Your task to perform on an android device: Empty the shopping cart on target.com. Search for logitech g933 on target.com, select the first entry, add it to the cart, then select checkout. Image 0: 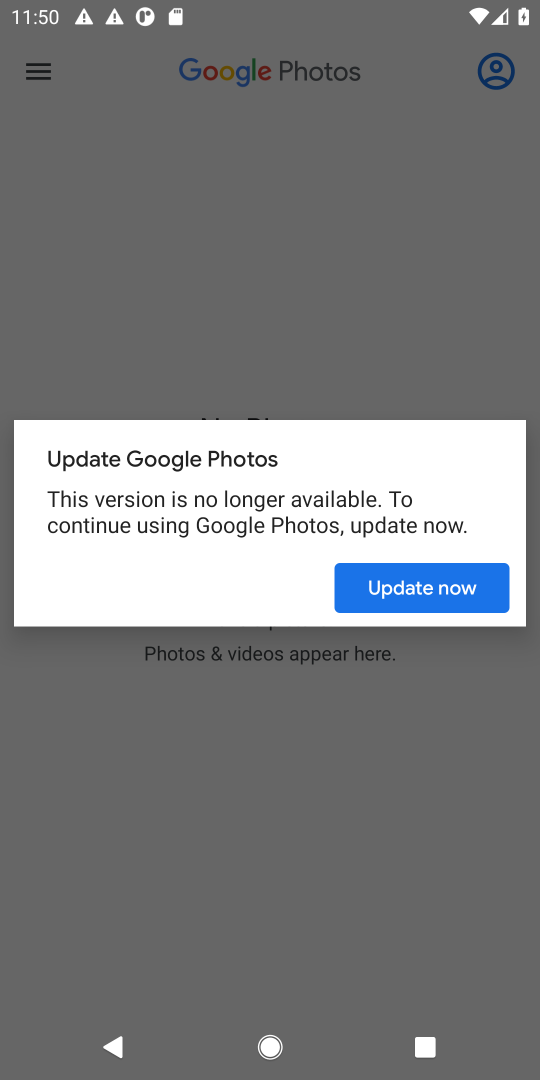
Step 0: press home button
Your task to perform on an android device: Empty the shopping cart on target.com. Search for logitech g933 on target.com, select the first entry, add it to the cart, then select checkout. Image 1: 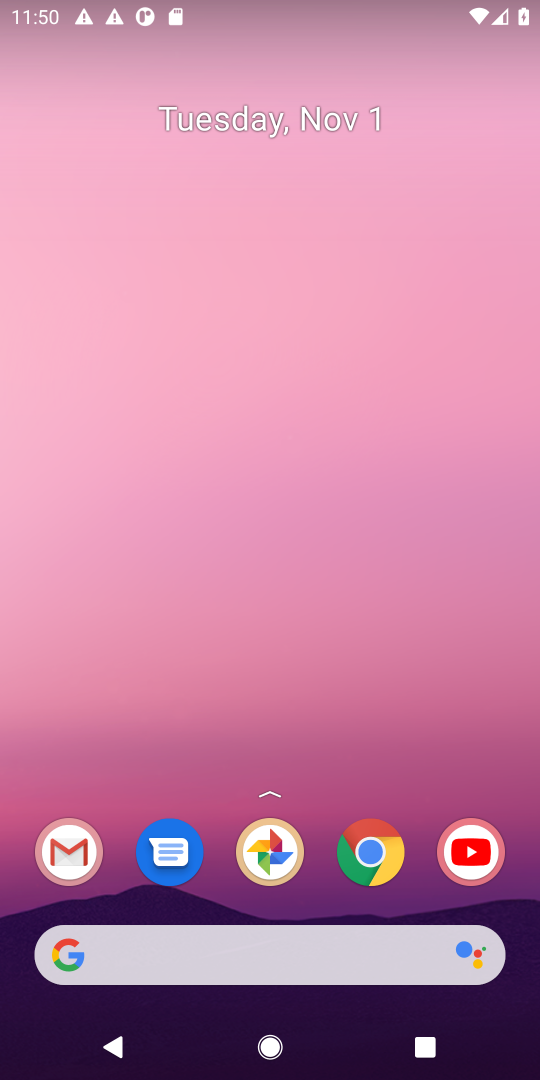
Step 1: click (61, 958)
Your task to perform on an android device: Empty the shopping cart on target.com. Search for logitech g933 on target.com, select the first entry, add it to the cart, then select checkout. Image 2: 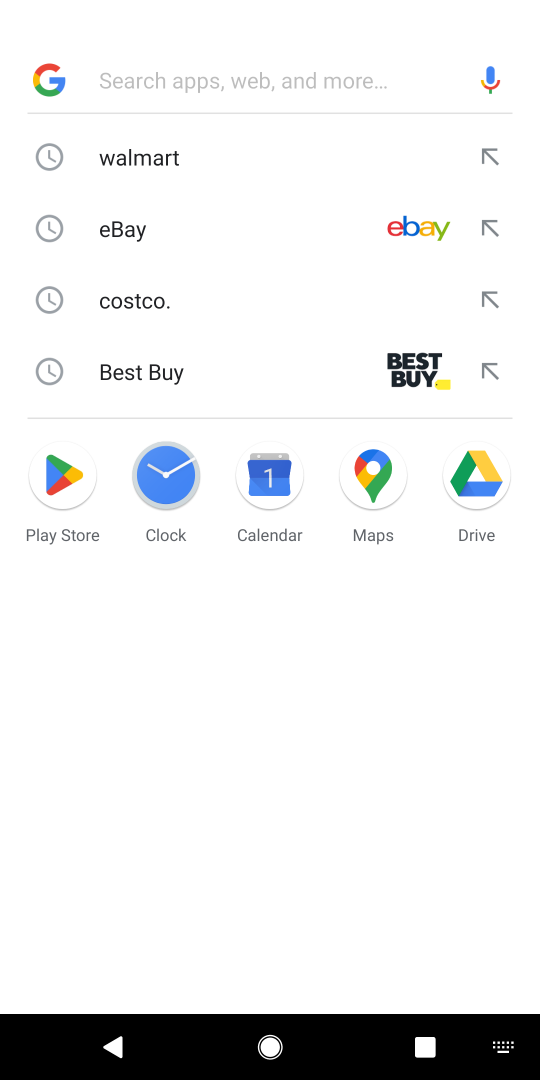
Step 2: type "target.com"
Your task to perform on an android device: Empty the shopping cart on target.com. Search for logitech g933 on target.com, select the first entry, add it to the cart, then select checkout. Image 3: 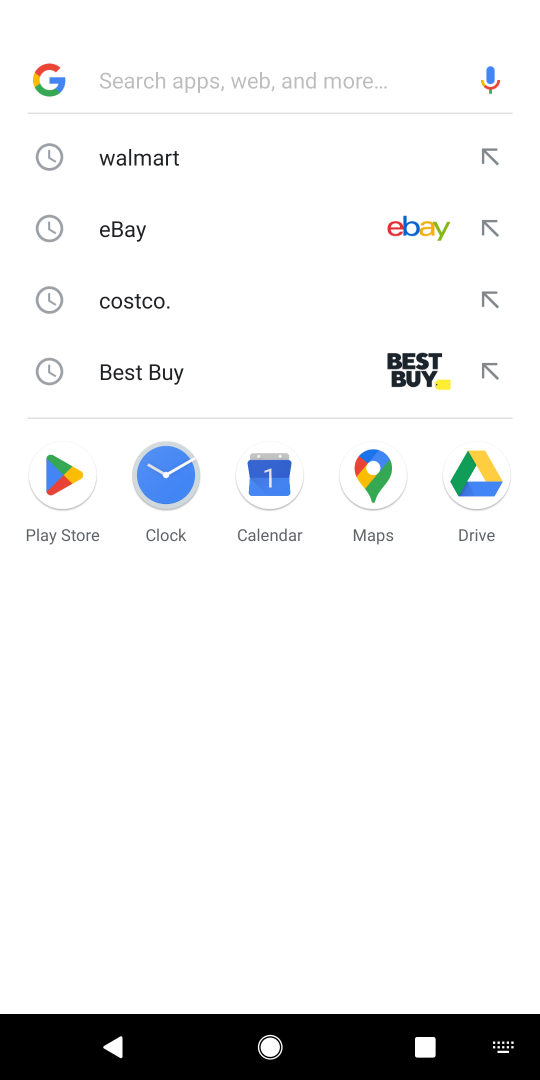
Step 3: click (126, 77)
Your task to perform on an android device: Empty the shopping cart on target.com. Search for logitech g933 on target.com, select the first entry, add it to the cart, then select checkout. Image 4: 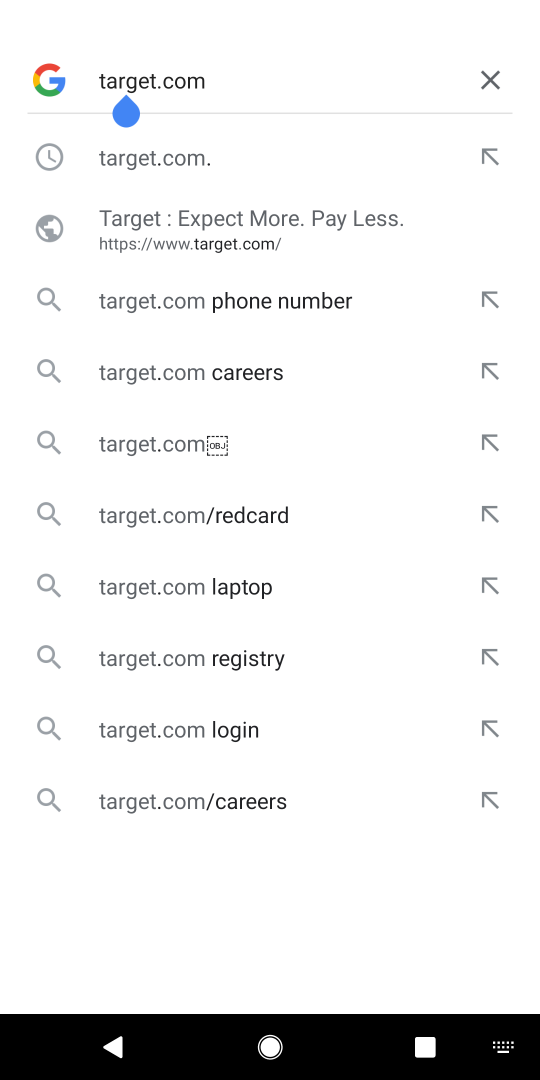
Step 4: click (154, 154)
Your task to perform on an android device: Empty the shopping cart on target.com. Search for logitech g933 on target.com, select the first entry, add it to the cart, then select checkout. Image 5: 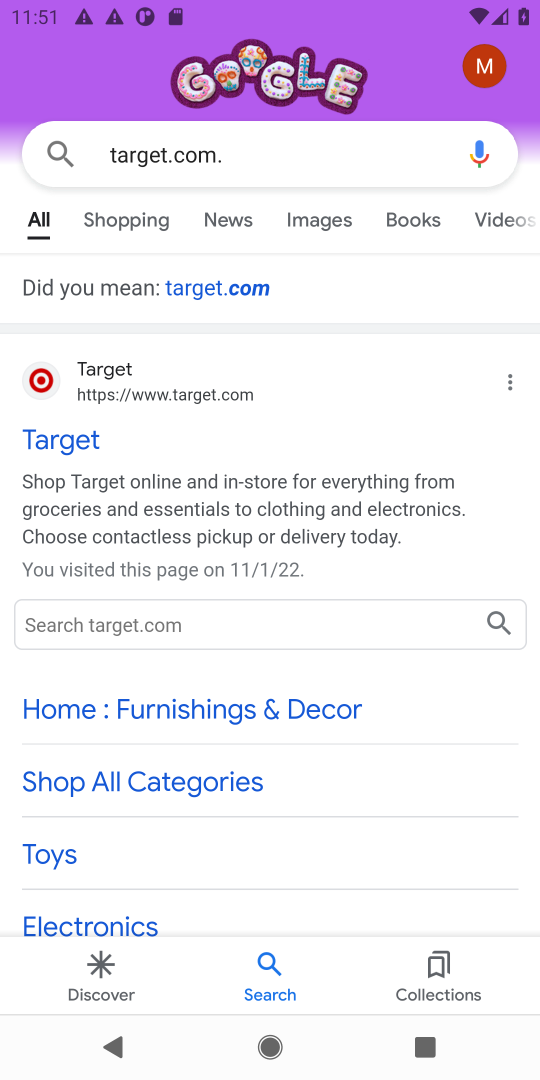
Step 5: click (62, 444)
Your task to perform on an android device: Empty the shopping cart on target.com. Search for logitech g933 on target.com, select the first entry, add it to the cart, then select checkout. Image 6: 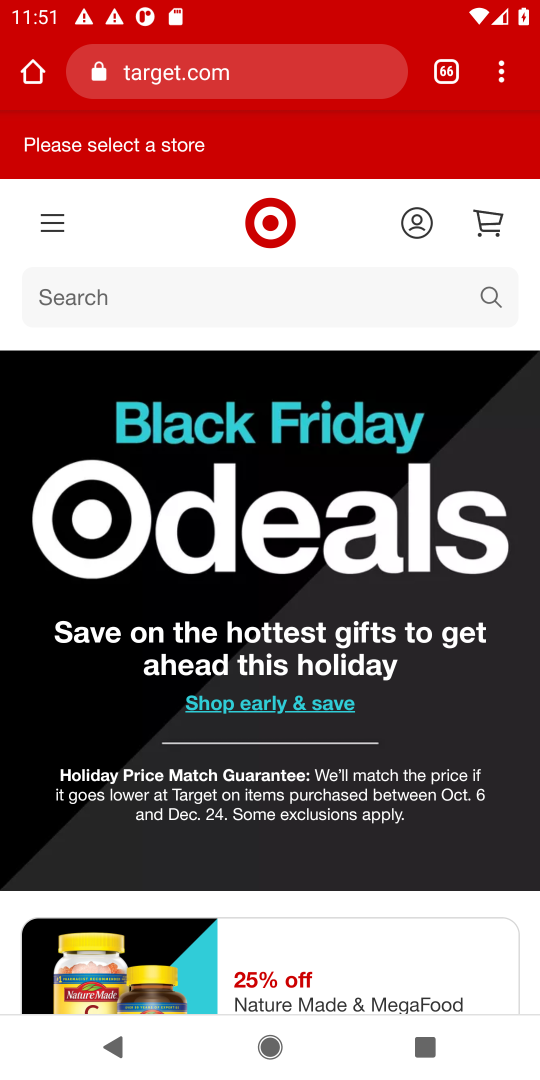
Step 6: click (144, 297)
Your task to perform on an android device: Empty the shopping cart on target.com. Search for logitech g933 on target.com, select the first entry, add it to the cart, then select checkout. Image 7: 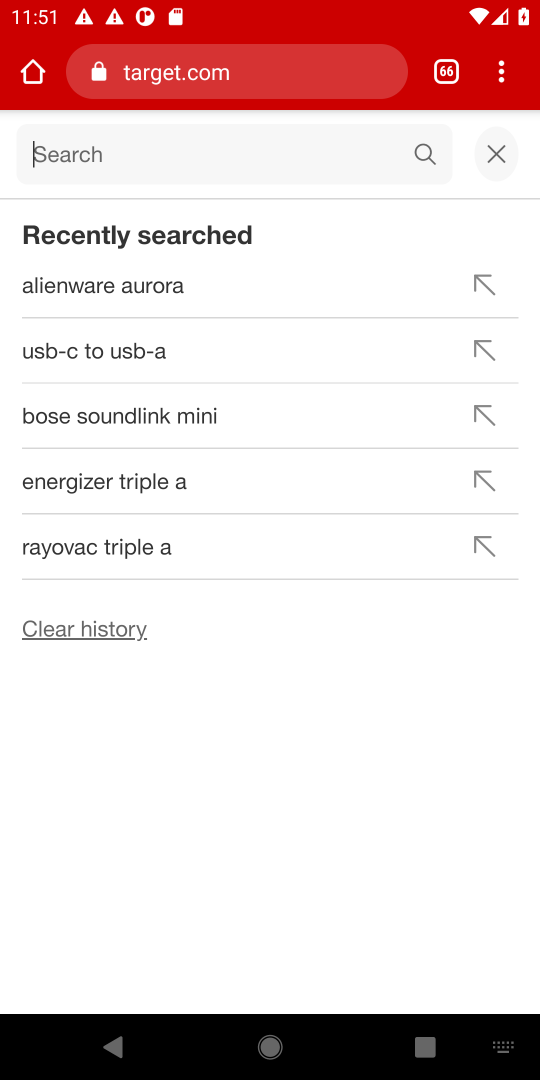
Step 7: type "logitech g933"
Your task to perform on an android device: Empty the shopping cart on target.com. Search for logitech g933 on target.com, select the first entry, add it to the cart, then select checkout. Image 8: 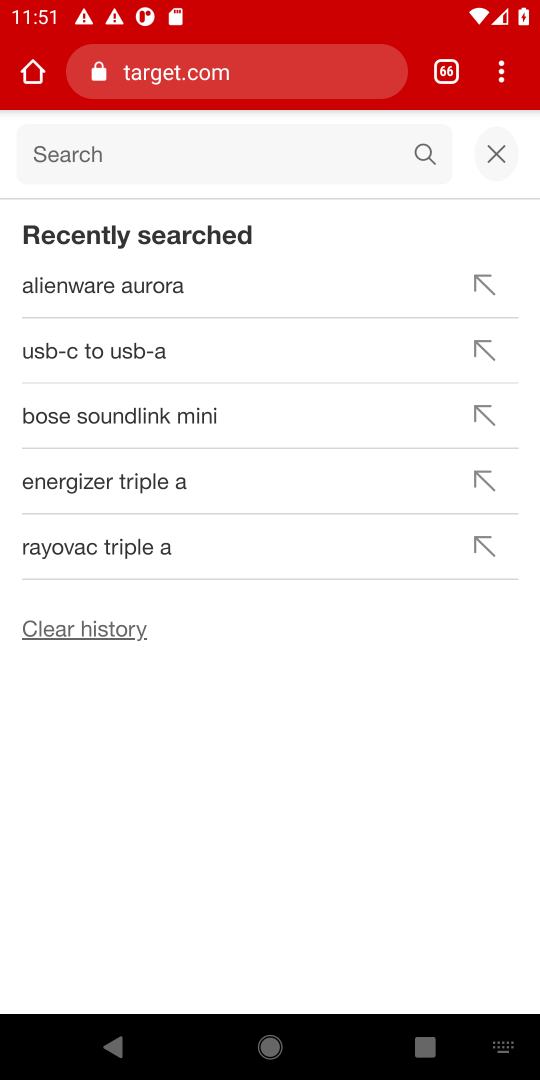
Step 8: click (104, 155)
Your task to perform on an android device: Empty the shopping cart on target.com. Search for logitech g933 on target.com, select the first entry, add it to the cart, then select checkout. Image 9: 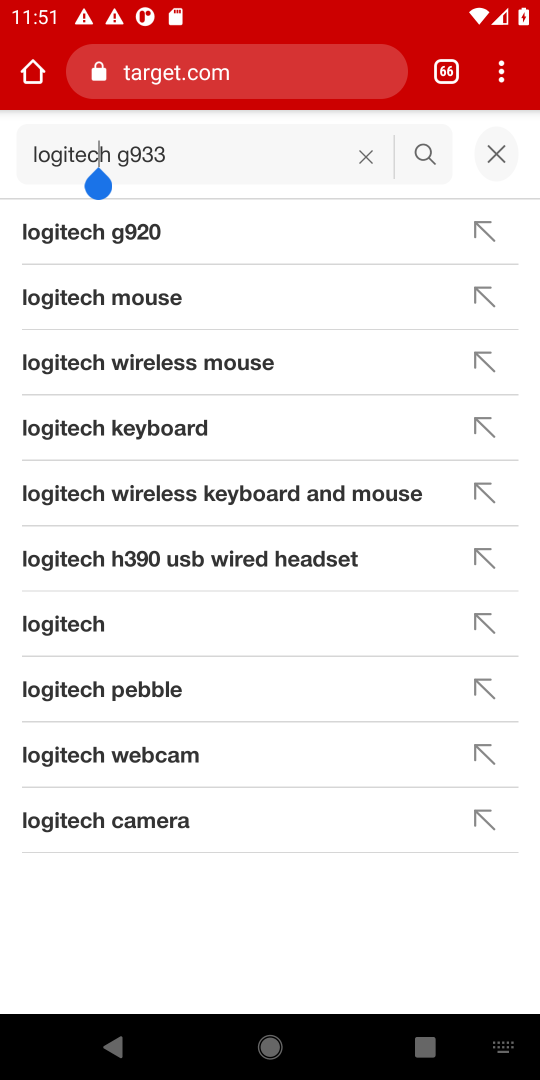
Step 9: press enter
Your task to perform on an android device: Empty the shopping cart on target.com. Search for logitech g933 on target.com, select the first entry, add it to the cart, then select checkout. Image 10: 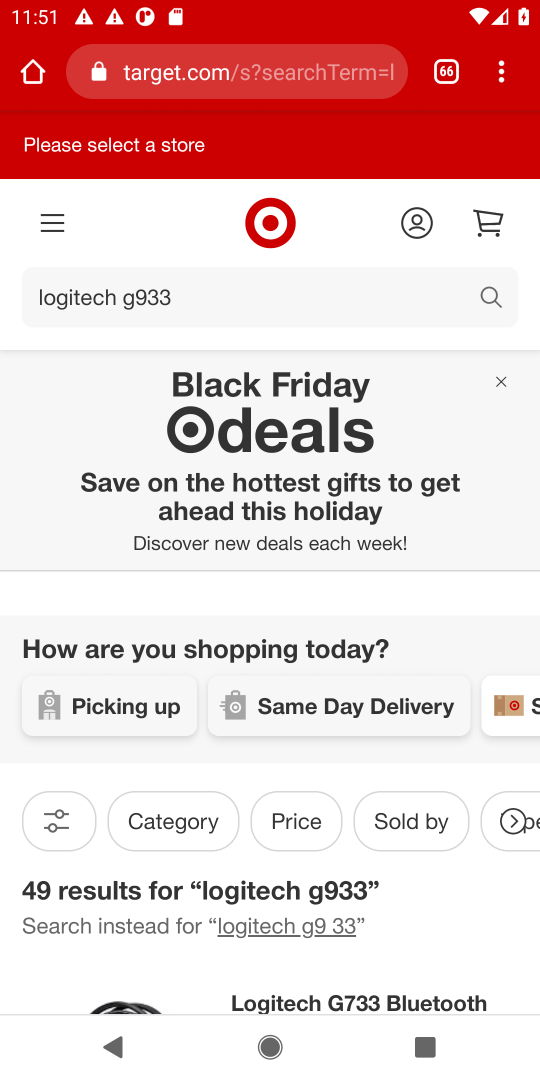
Step 10: task complete